Your task to perform on an android device: Open the calendar and show me this week's events? Image 0: 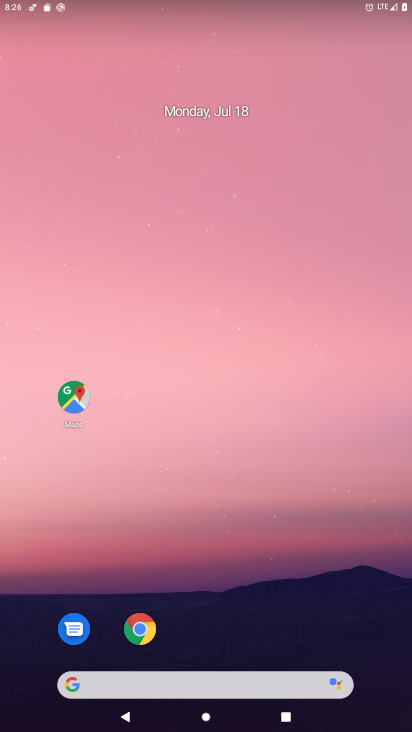
Step 0: drag from (203, 562) to (247, 4)
Your task to perform on an android device: Open the calendar and show me this week's events? Image 1: 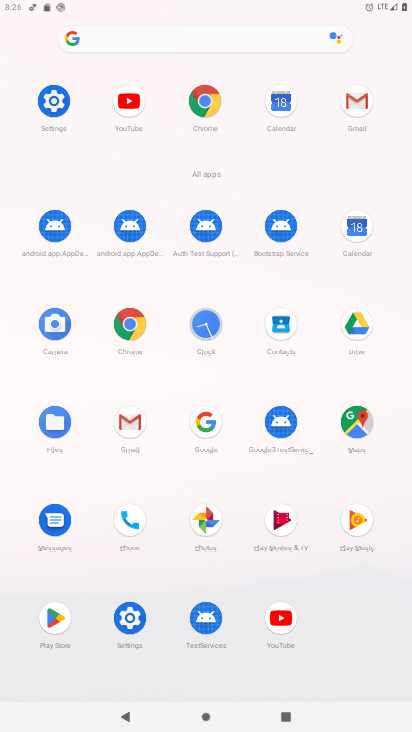
Step 1: click (353, 237)
Your task to perform on an android device: Open the calendar and show me this week's events? Image 2: 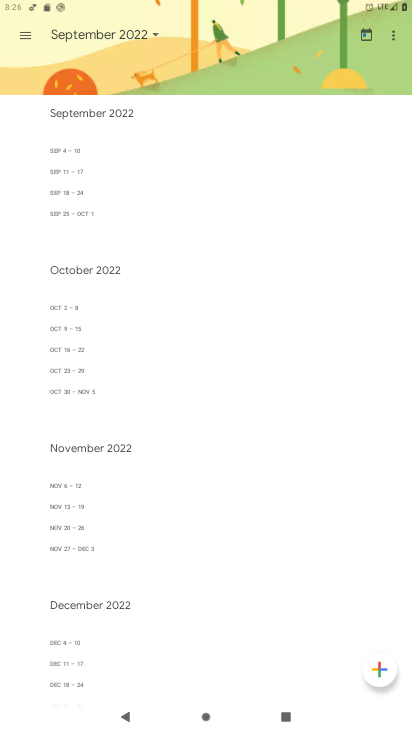
Step 2: click (24, 30)
Your task to perform on an android device: Open the calendar and show me this week's events? Image 3: 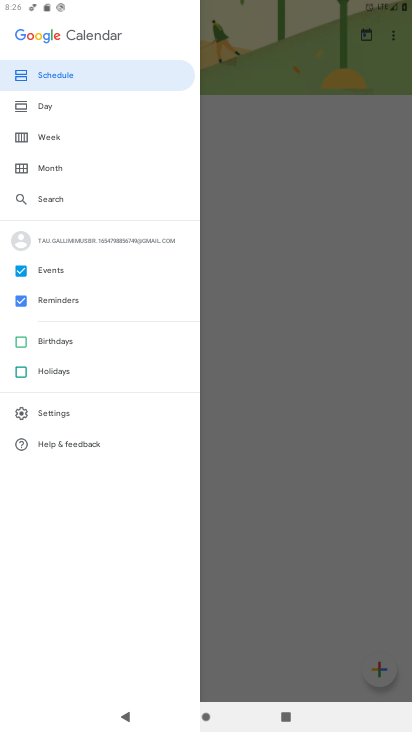
Step 3: click (36, 291)
Your task to perform on an android device: Open the calendar and show me this week's events? Image 4: 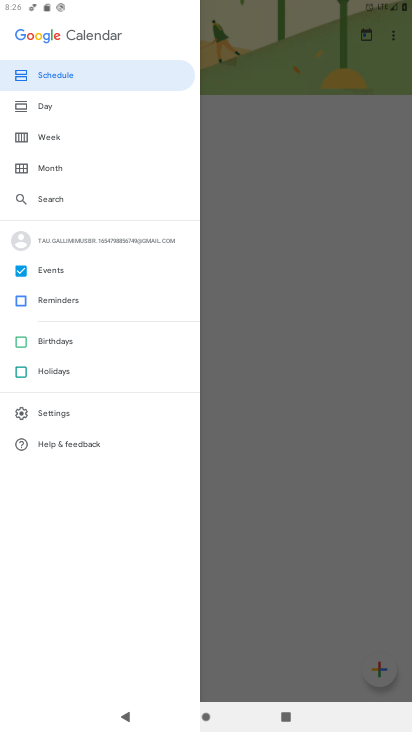
Step 4: click (43, 140)
Your task to perform on an android device: Open the calendar and show me this week's events? Image 5: 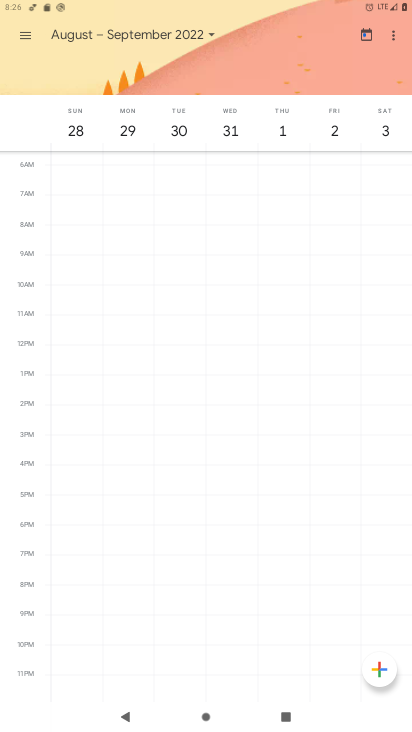
Step 5: click (84, 34)
Your task to perform on an android device: Open the calendar and show me this week's events? Image 6: 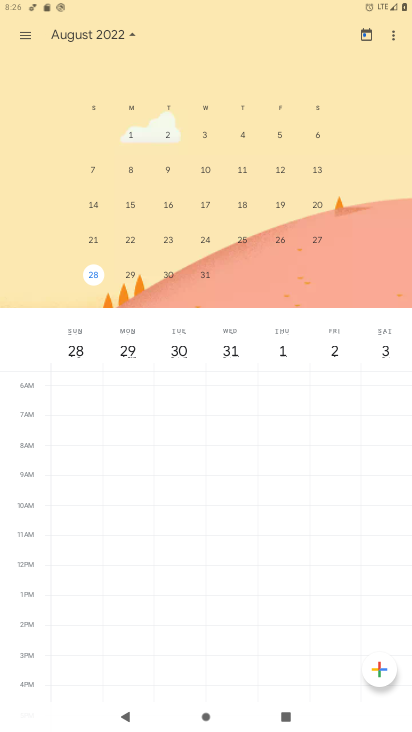
Step 6: drag from (80, 185) to (399, 223)
Your task to perform on an android device: Open the calendar and show me this week's events? Image 7: 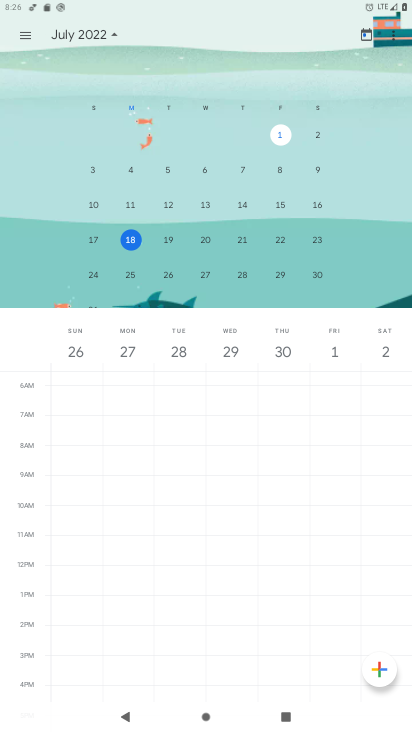
Step 7: drag from (106, 181) to (208, 169)
Your task to perform on an android device: Open the calendar and show me this week's events? Image 8: 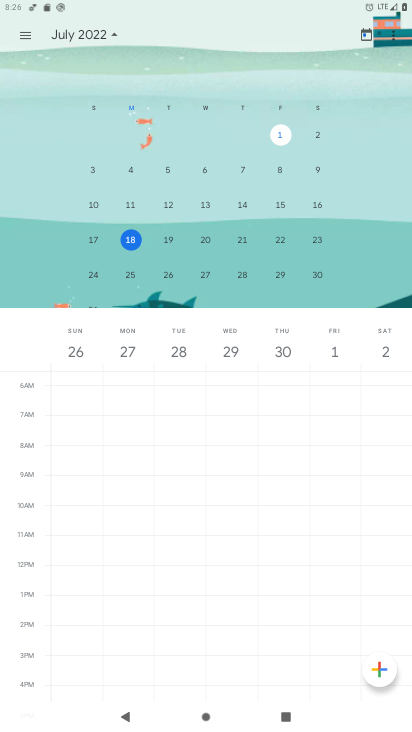
Step 8: click (124, 236)
Your task to perform on an android device: Open the calendar and show me this week's events? Image 9: 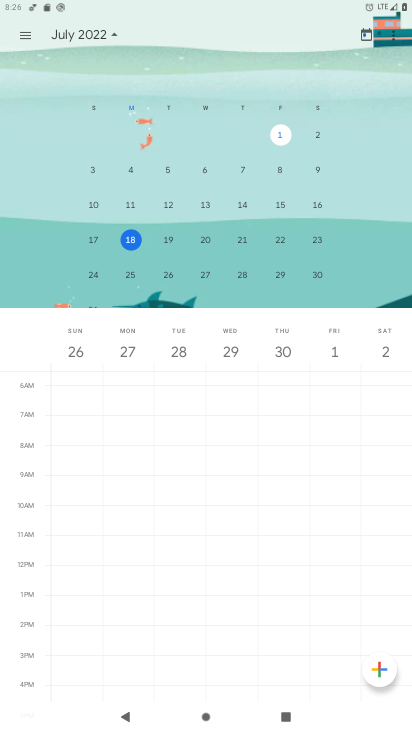
Step 9: click (21, 32)
Your task to perform on an android device: Open the calendar and show me this week's events? Image 10: 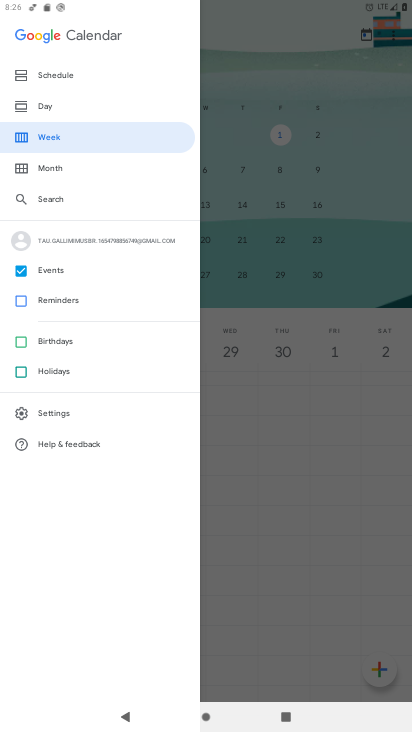
Step 10: click (43, 146)
Your task to perform on an android device: Open the calendar and show me this week's events? Image 11: 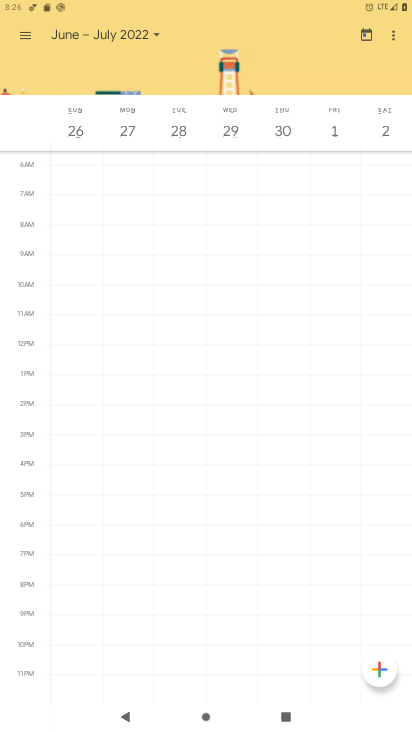
Step 11: task complete